Your task to perform on an android device: check google app version Image 0: 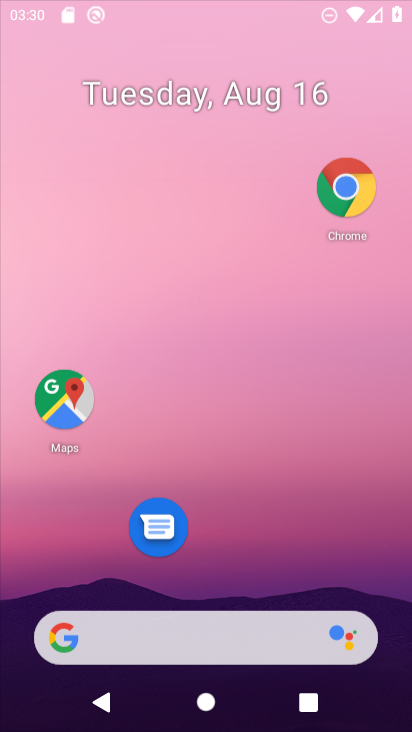
Step 0: press home button
Your task to perform on an android device: check google app version Image 1: 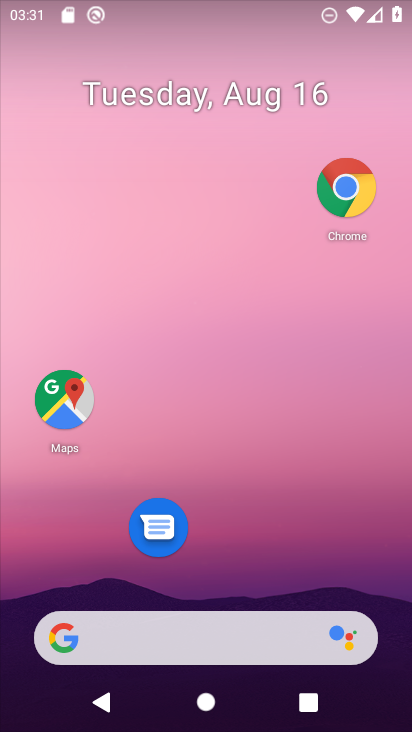
Step 1: drag from (228, 576) to (233, 89)
Your task to perform on an android device: check google app version Image 2: 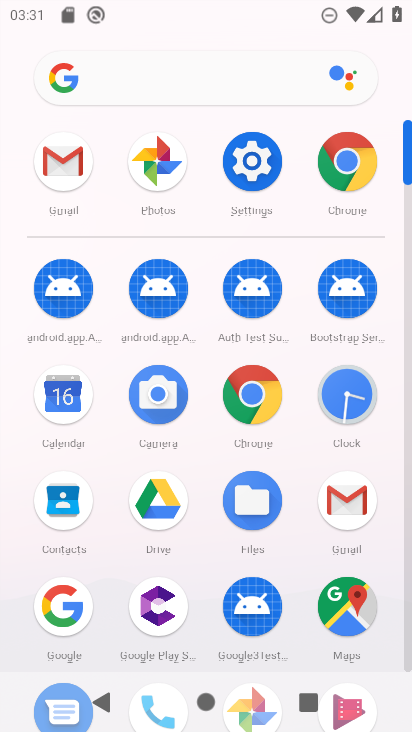
Step 2: click (57, 602)
Your task to perform on an android device: check google app version Image 3: 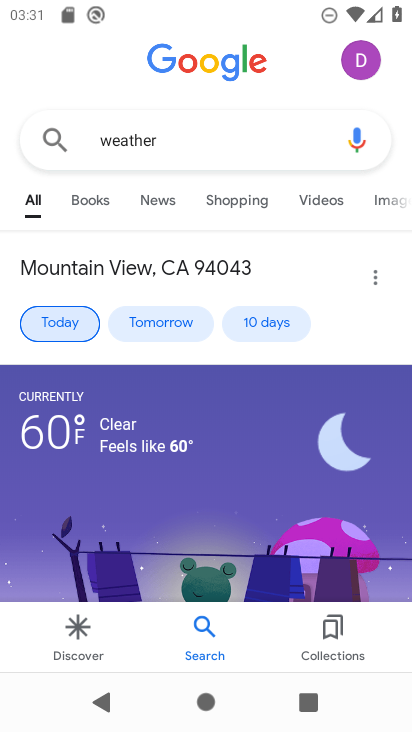
Step 3: click (364, 53)
Your task to perform on an android device: check google app version Image 4: 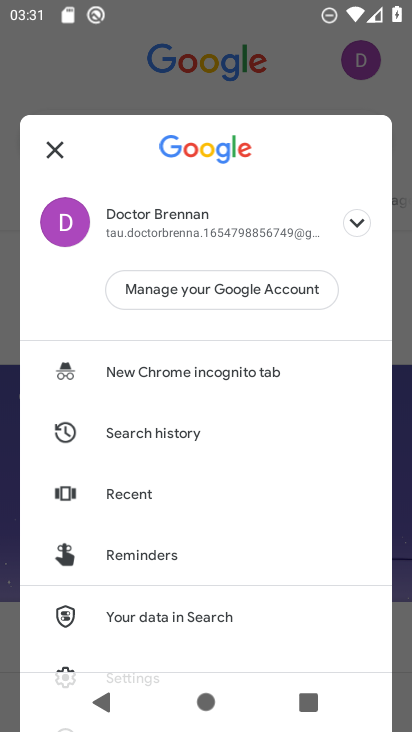
Step 4: drag from (238, 641) to (216, 138)
Your task to perform on an android device: check google app version Image 5: 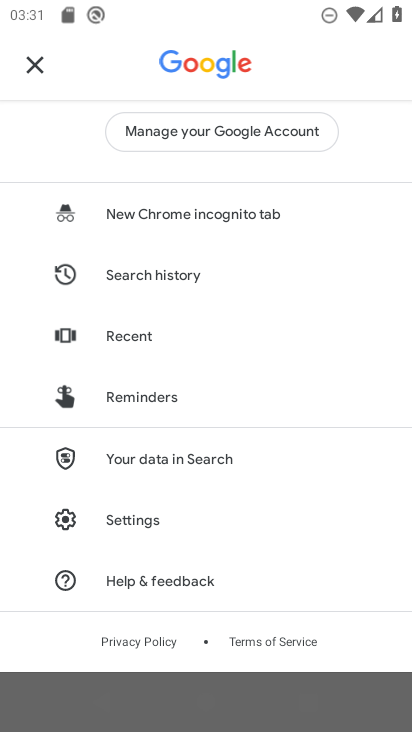
Step 5: click (172, 521)
Your task to perform on an android device: check google app version Image 6: 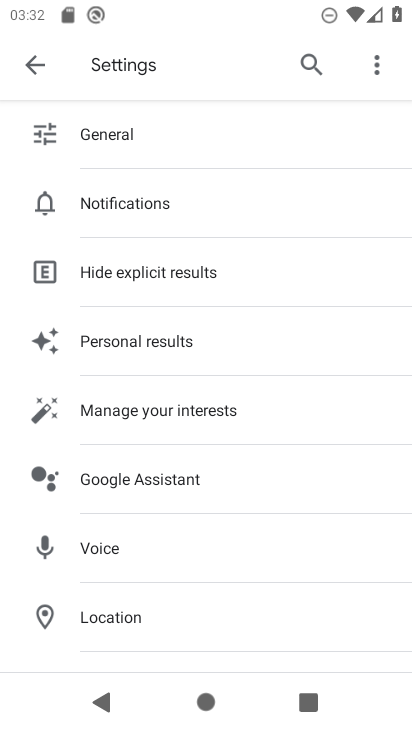
Step 6: drag from (221, 588) to (200, 172)
Your task to perform on an android device: check google app version Image 7: 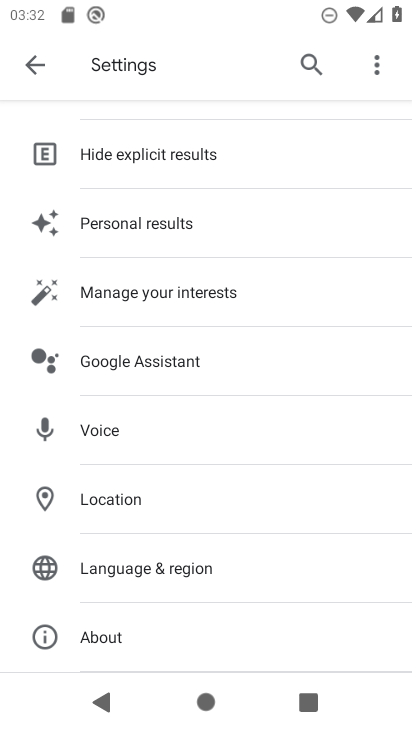
Step 7: click (140, 630)
Your task to perform on an android device: check google app version Image 8: 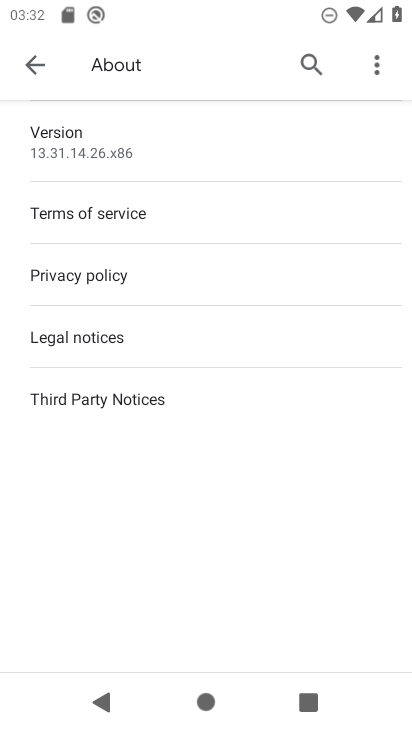
Step 8: task complete